Your task to perform on an android device: turn off wifi Image 0: 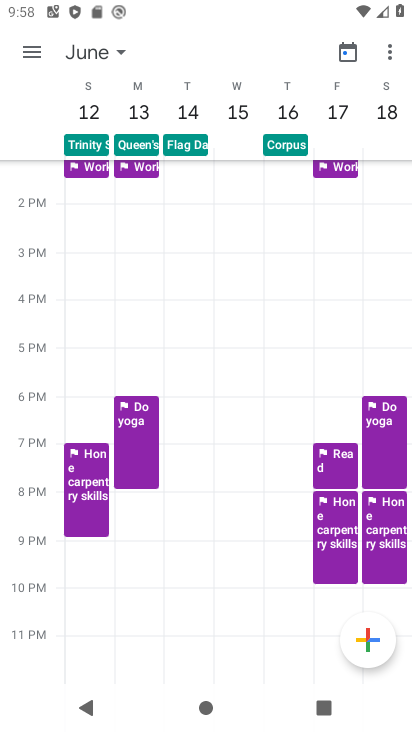
Step 0: press home button
Your task to perform on an android device: turn off wifi Image 1: 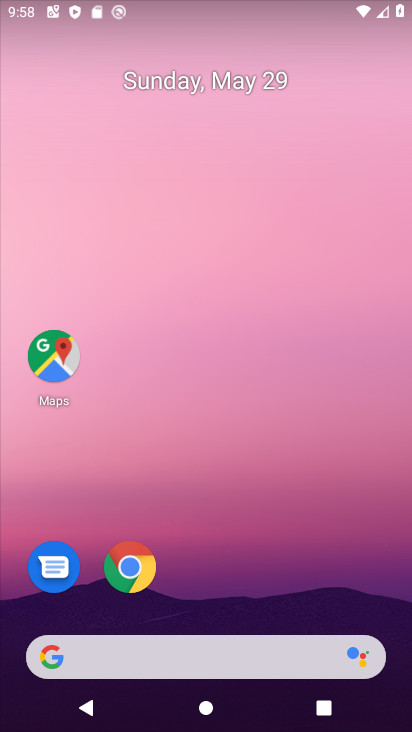
Step 1: drag from (376, 602) to (357, 39)
Your task to perform on an android device: turn off wifi Image 2: 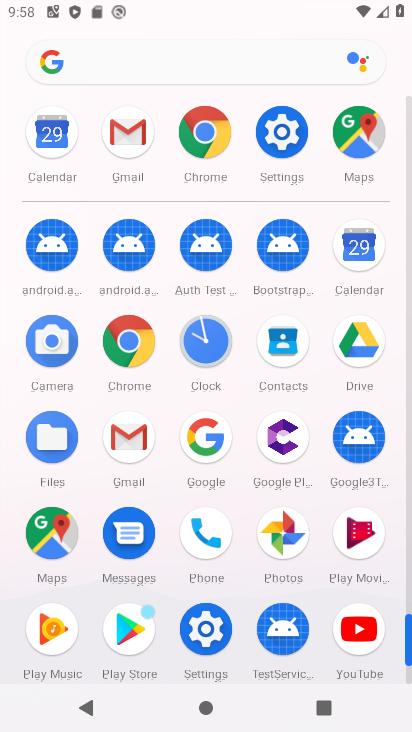
Step 2: click (207, 629)
Your task to perform on an android device: turn off wifi Image 3: 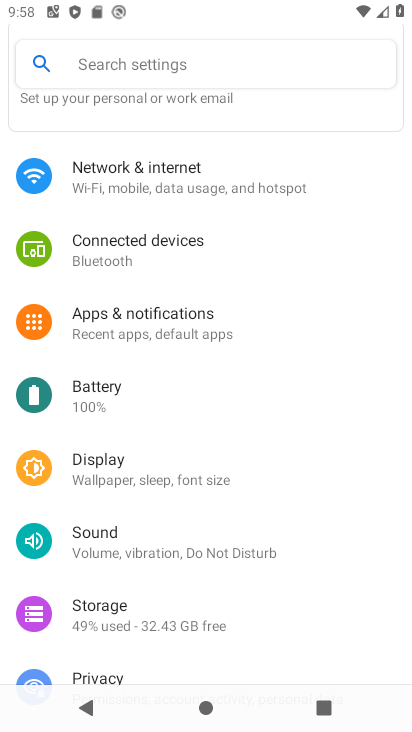
Step 3: click (129, 174)
Your task to perform on an android device: turn off wifi Image 4: 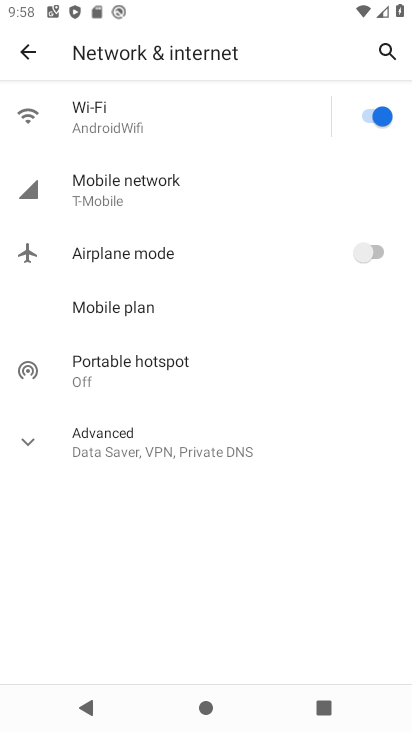
Step 4: click (367, 118)
Your task to perform on an android device: turn off wifi Image 5: 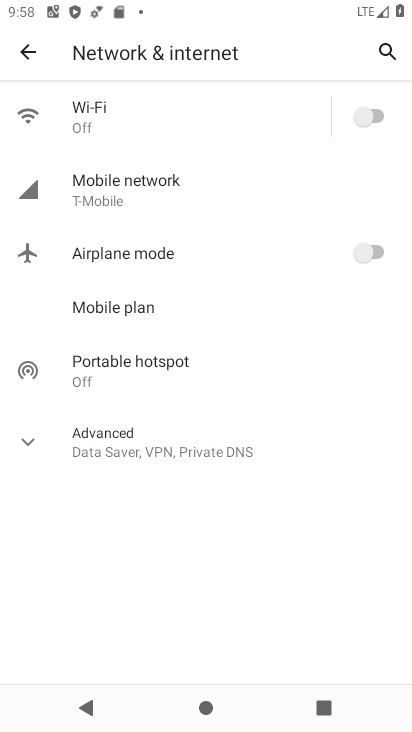
Step 5: task complete